Your task to perform on an android device: Clear the cart on walmart. Image 0: 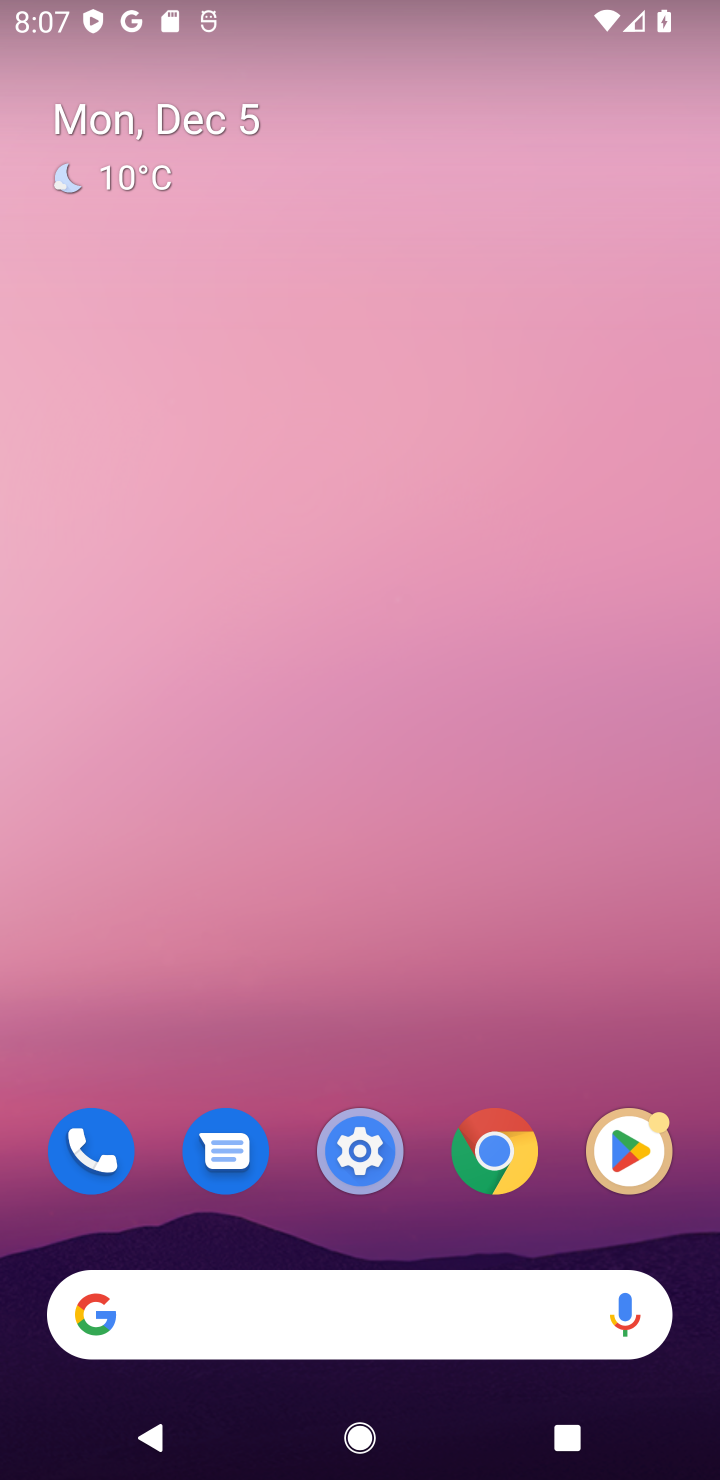
Step 0: click (401, 1329)
Your task to perform on an android device: Clear the cart on walmart. Image 1: 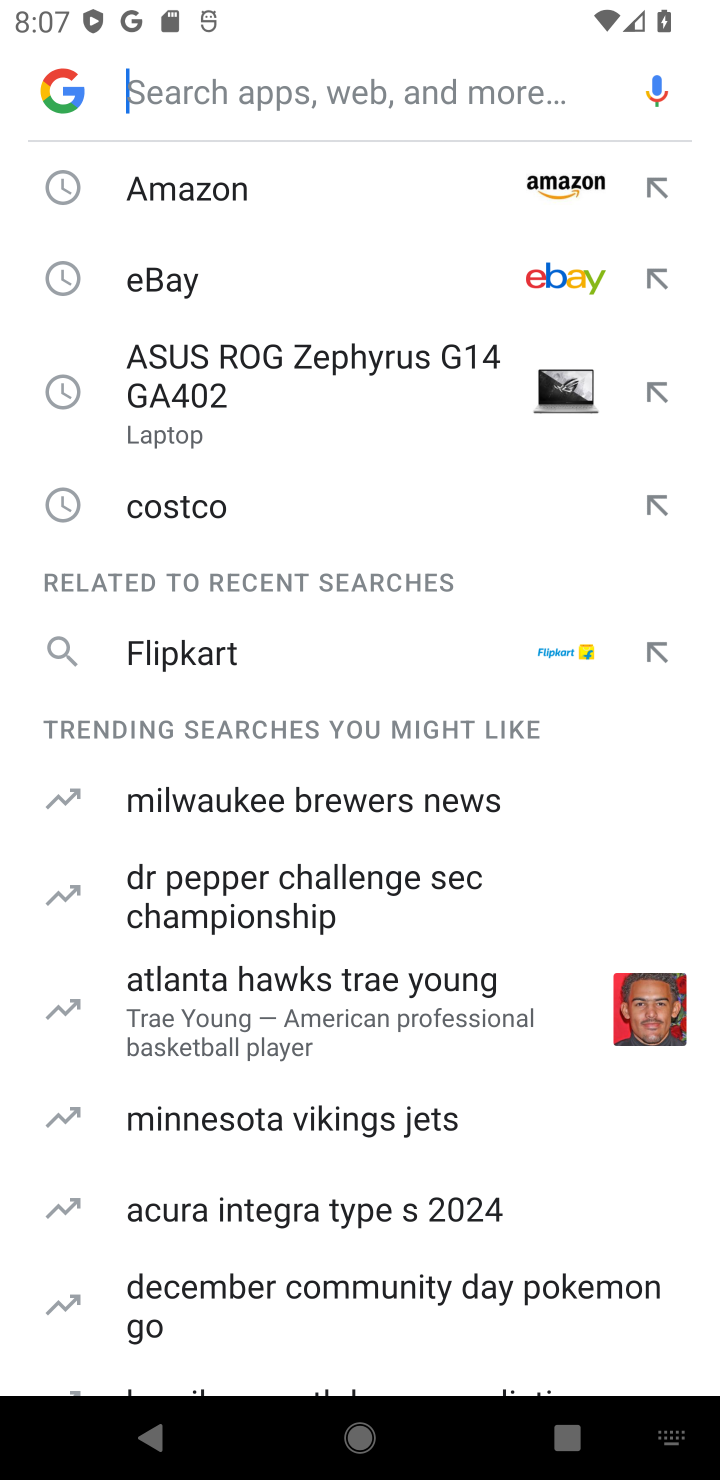
Step 1: type "walmart"
Your task to perform on an android device: Clear the cart on walmart. Image 2: 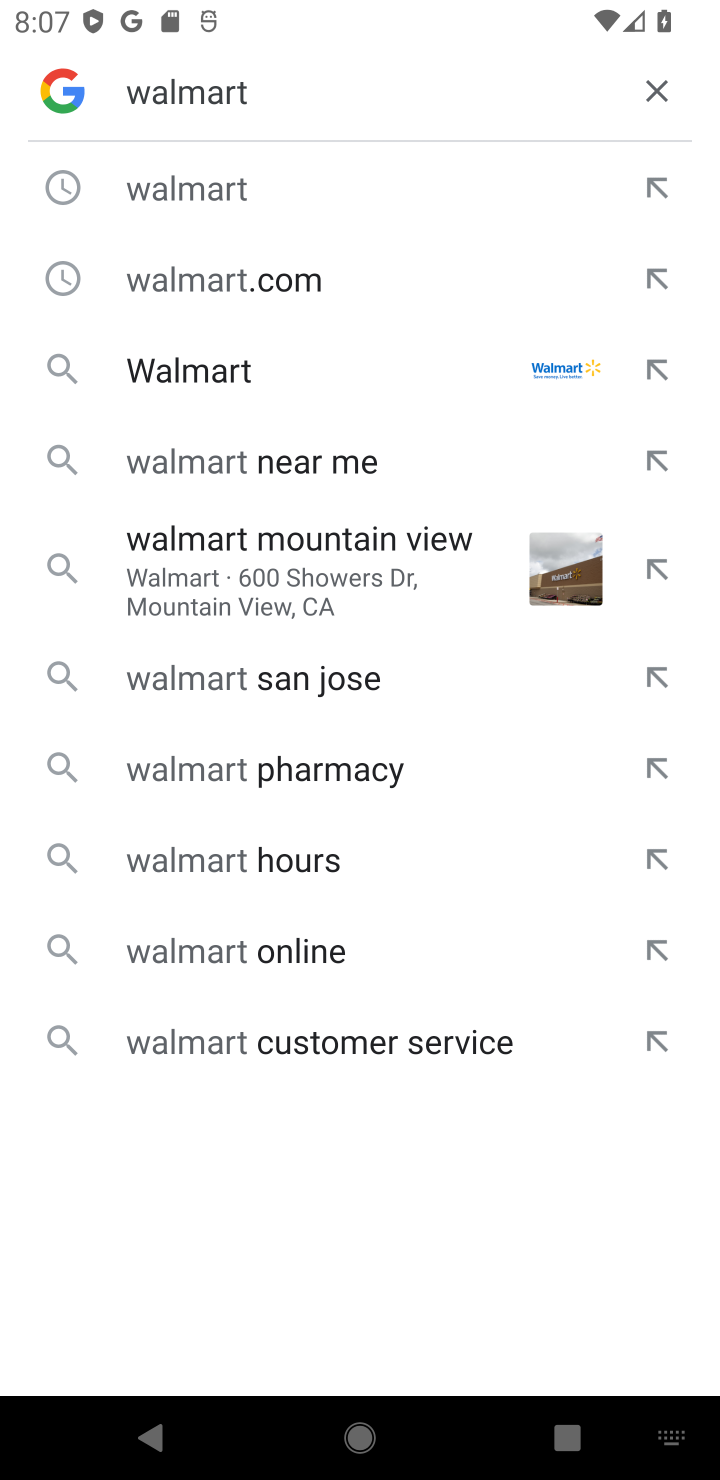
Step 2: click (200, 155)
Your task to perform on an android device: Clear the cart on walmart. Image 3: 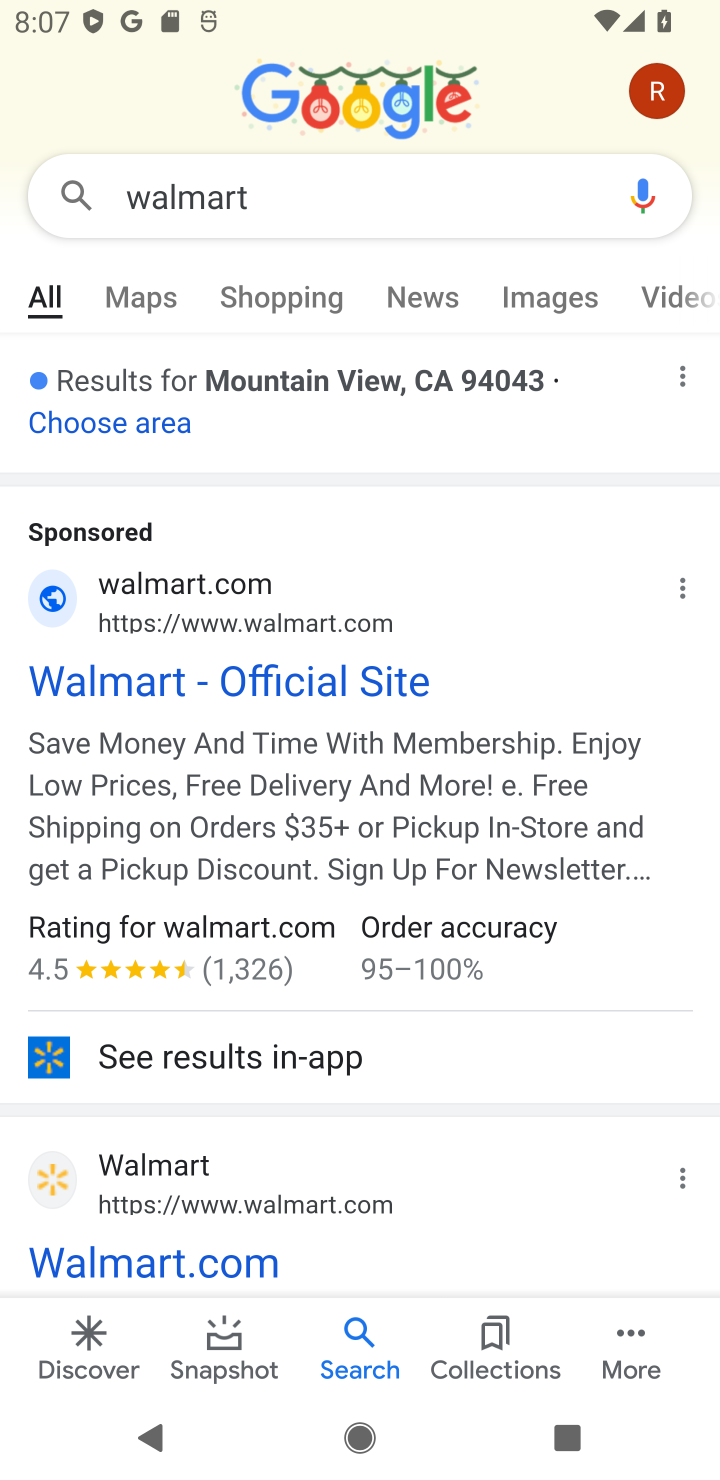
Step 3: click (131, 640)
Your task to perform on an android device: Clear the cart on walmart. Image 4: 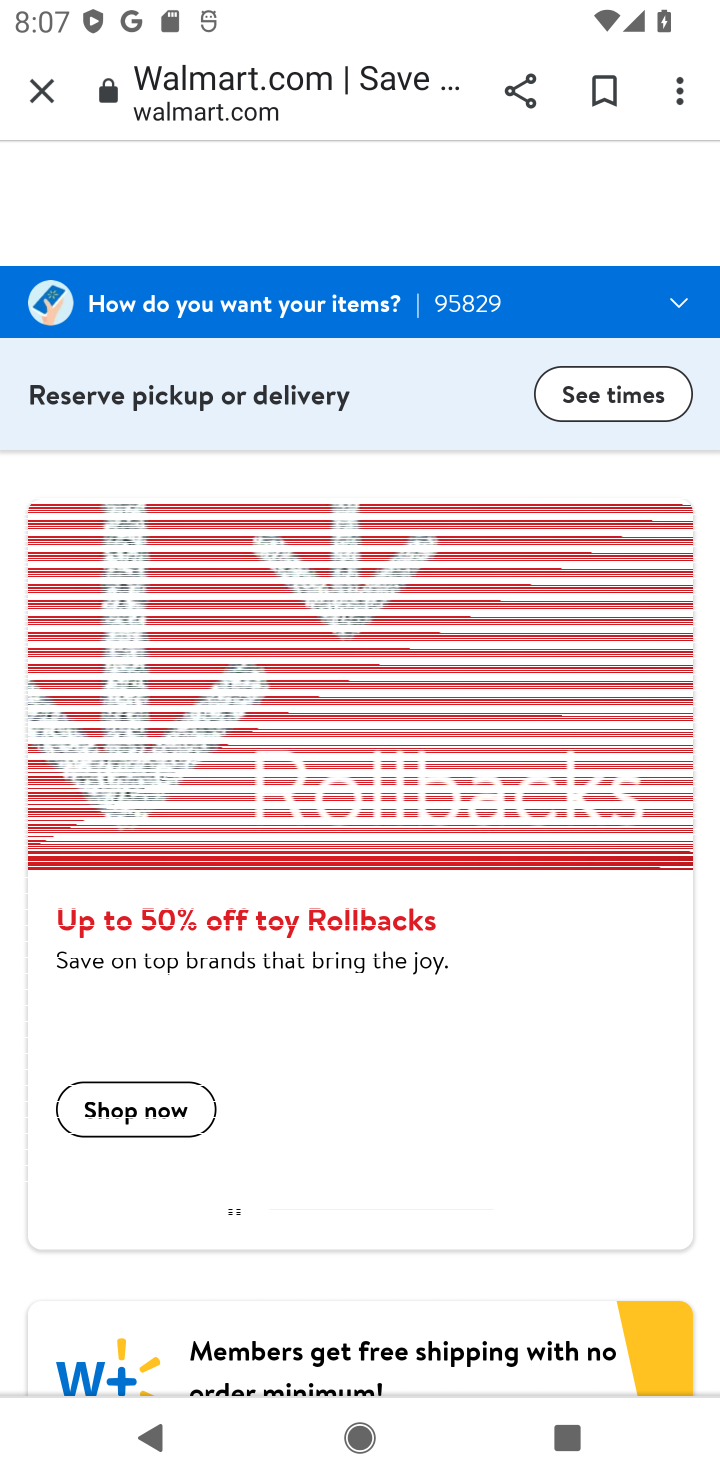
Step 4: click (641, 187)
Your task to perform on an android device: Clear the cart on walmart. Image 5: 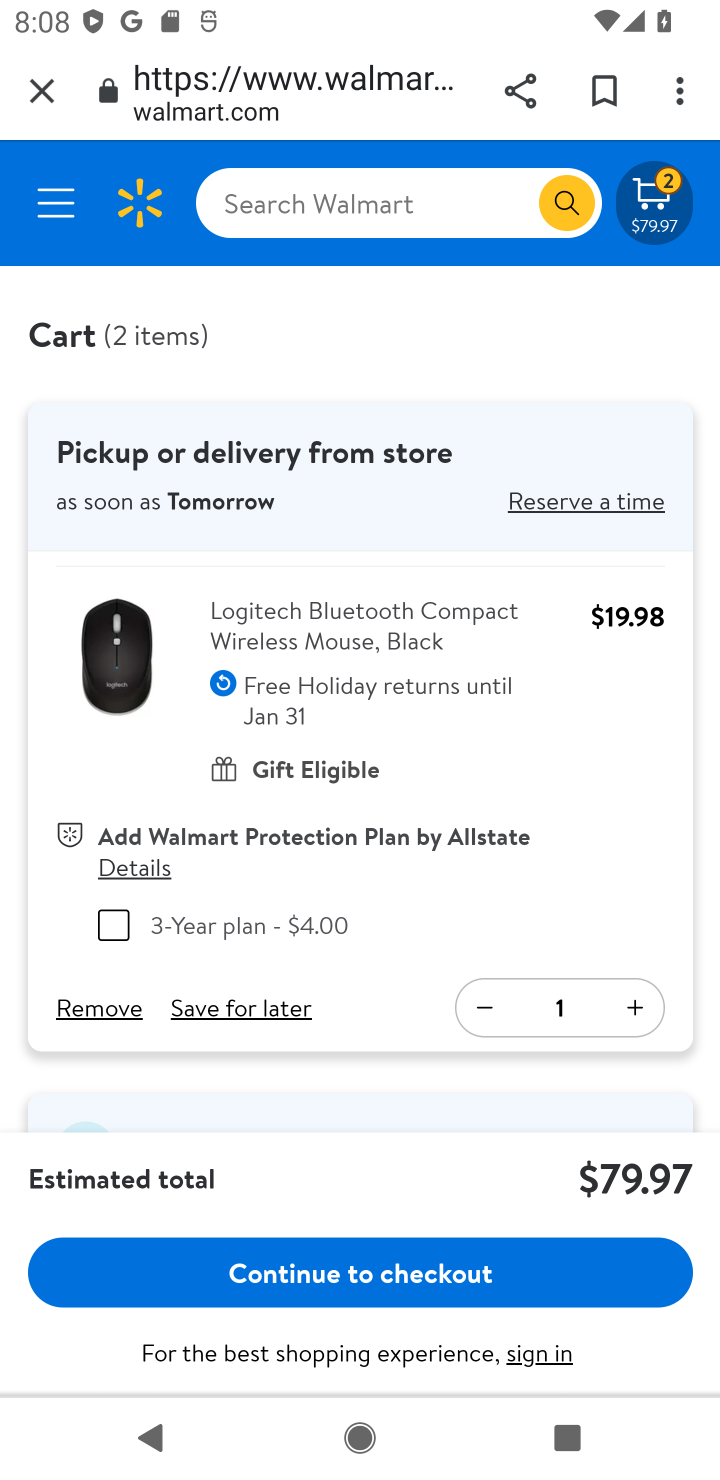
Step 5: click (114, 1003)
Your task to perform on an android device: Clear the cart on walmart. Image 6: 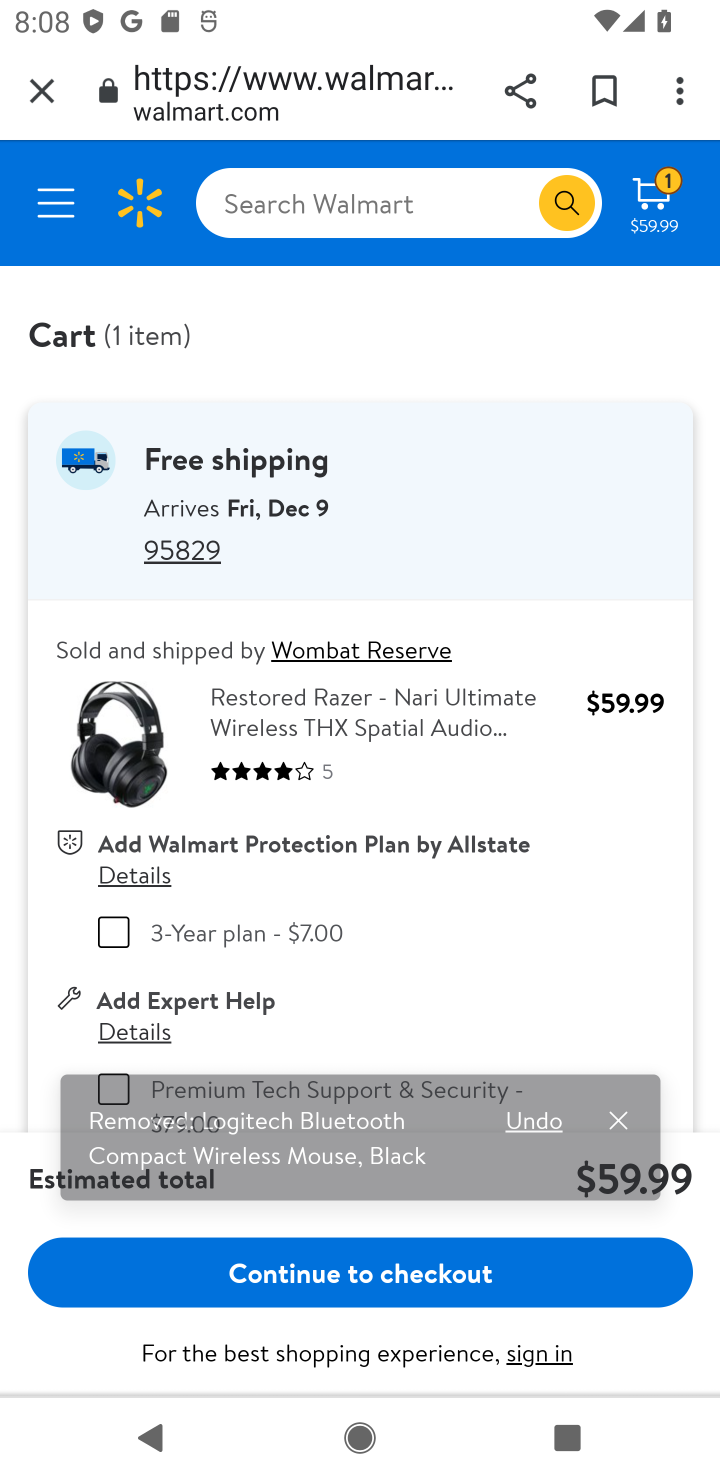
Step 6: click (114, 1003)
Your task to perform on an android device: Clear the cart on walmart. Image 7: 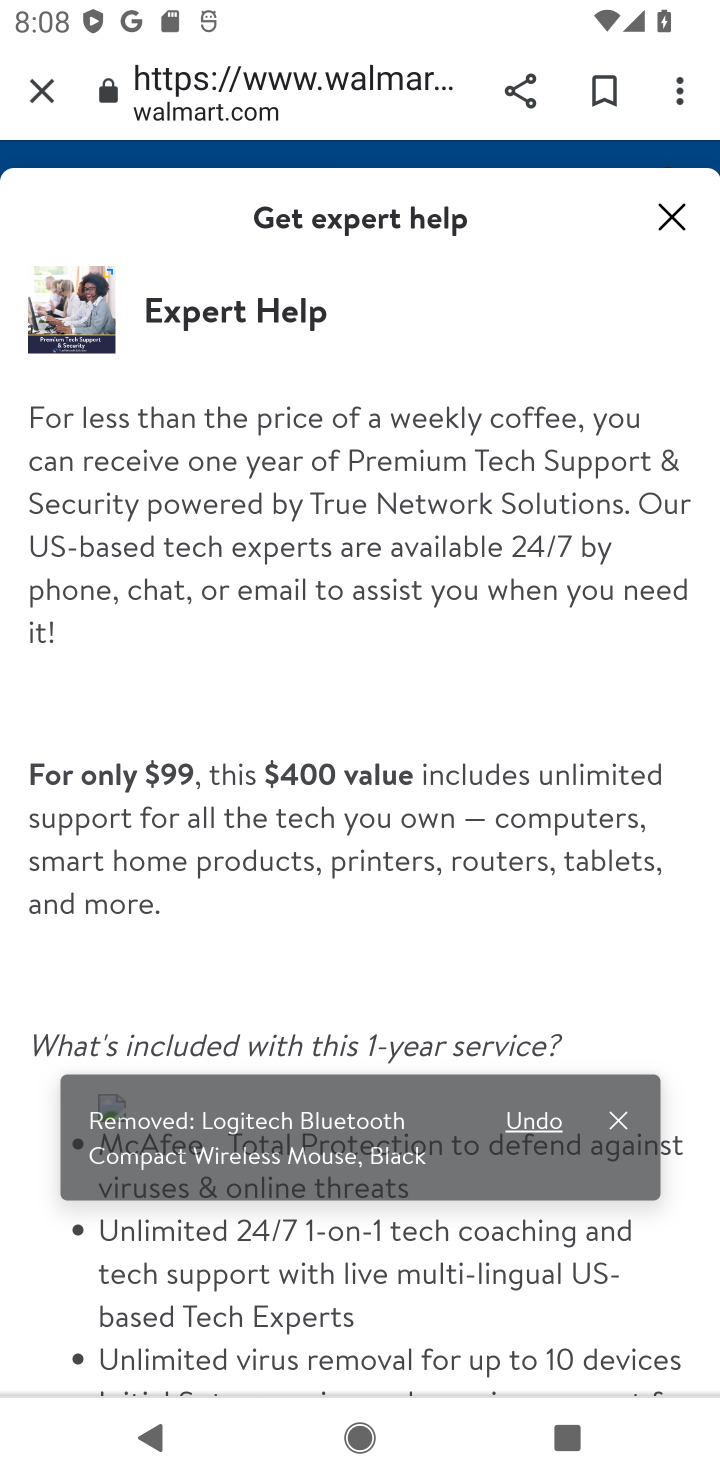
Step 7: click (672, 222)
Your task to perform on an android device: Clear the cart on walmart. Image 8: 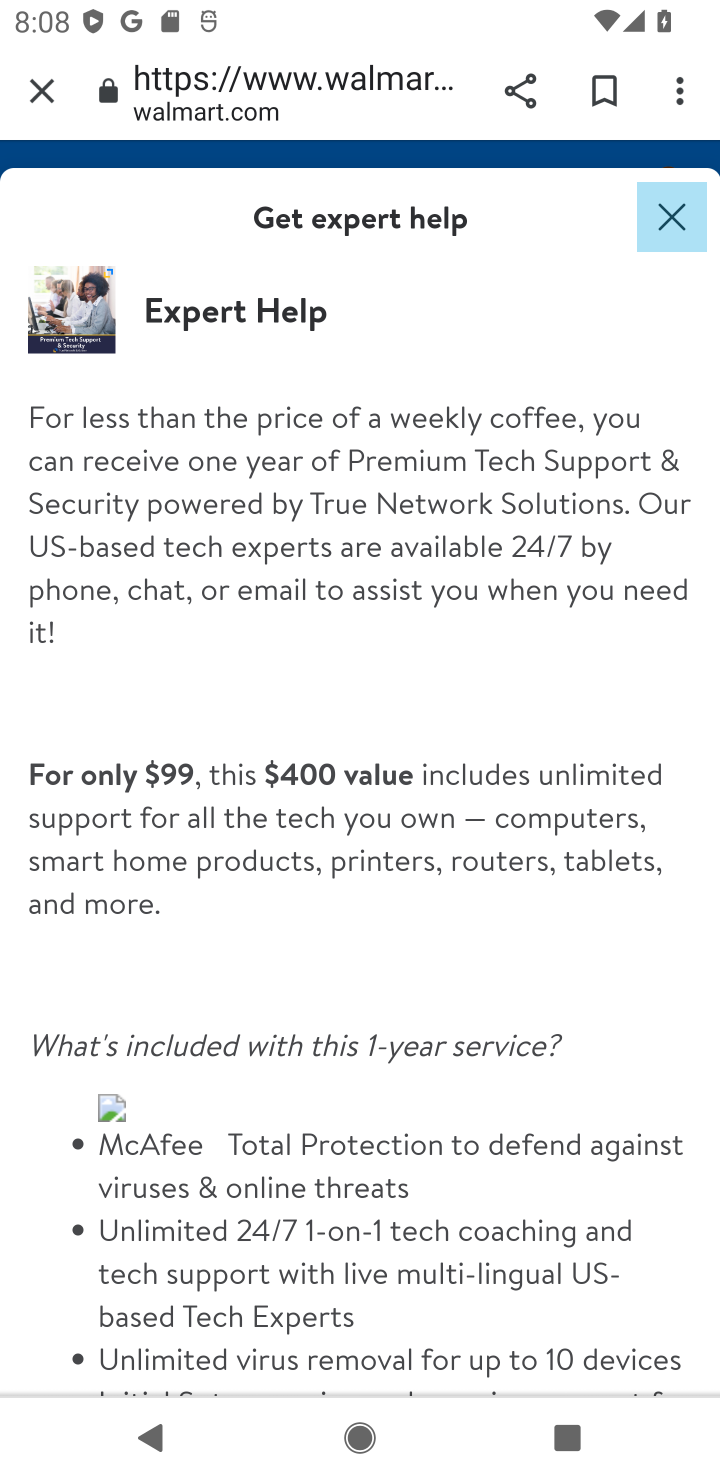
Step 8: task complete